Your task to perform on an android device: open a new tab in the chrome app Image 0: 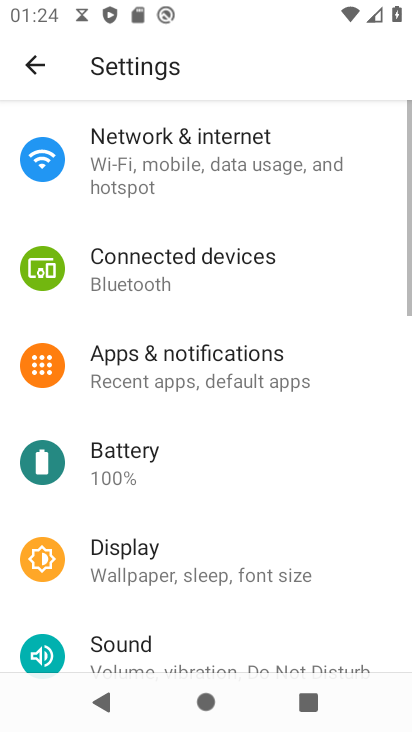
Step 0: press home button
Your task to perform on an android device: open a new tab in the chrome app Image 1: 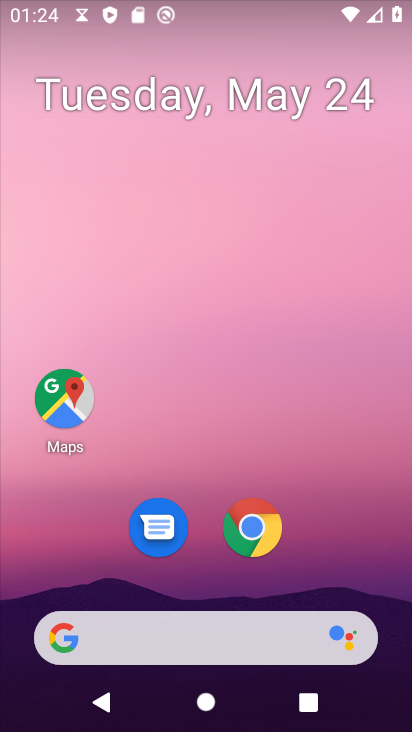
Step 1: click (255, 538)
Your task to perform on an android device: open a new tab in the chrome app Image 2: 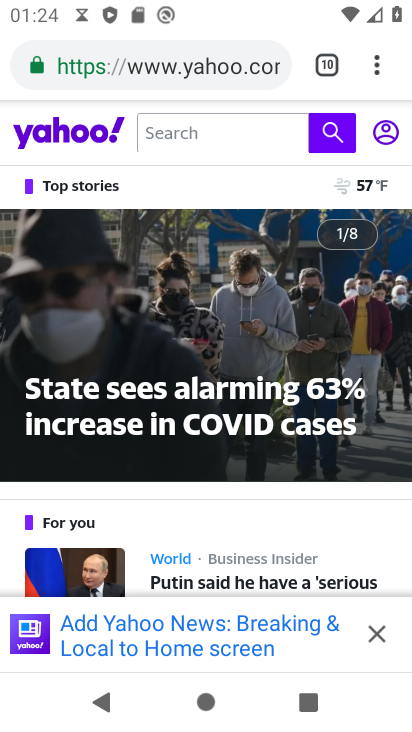
Step 2: task complete